Your task to perform on an android device: Turn on the flashlight Image 0: 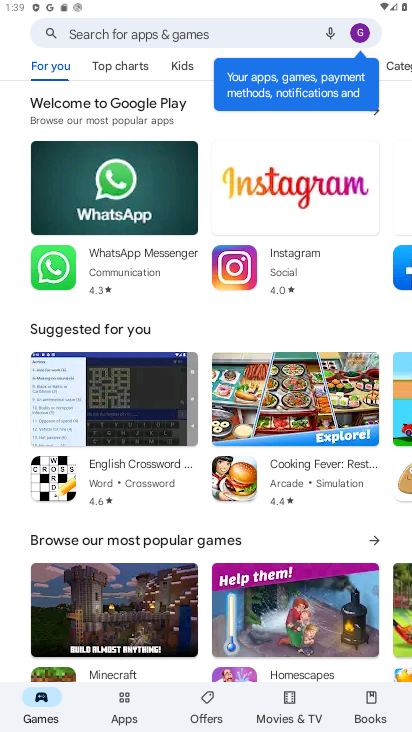
Step 0: press home button
Your task to perform on an android device: Turn on the flashlight Image 1: 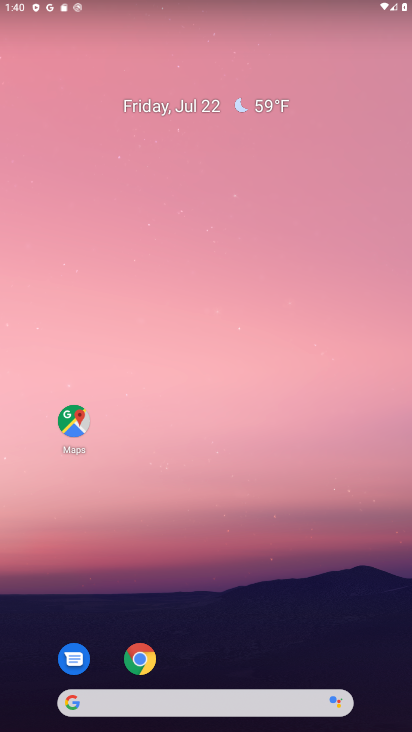
Step 1: drag from (262, 335) to (368, 696)
Your task to perform on an android device: Turn on the flashlight Image 2: 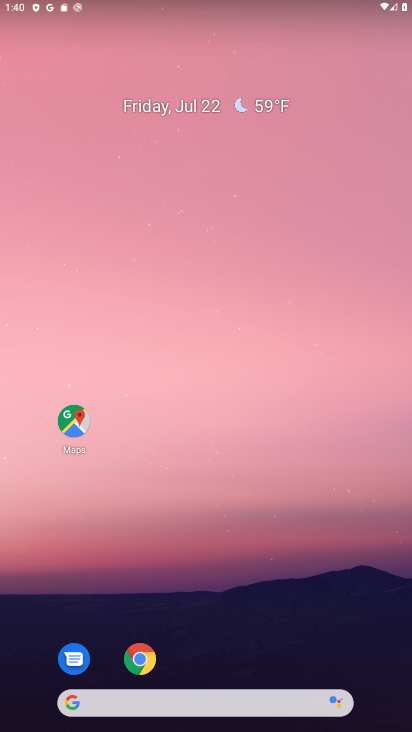
Step 2: drag from (267, 640) to (288, 1)
Your task to perform on an android device: Turn on the flashlight Image 3: 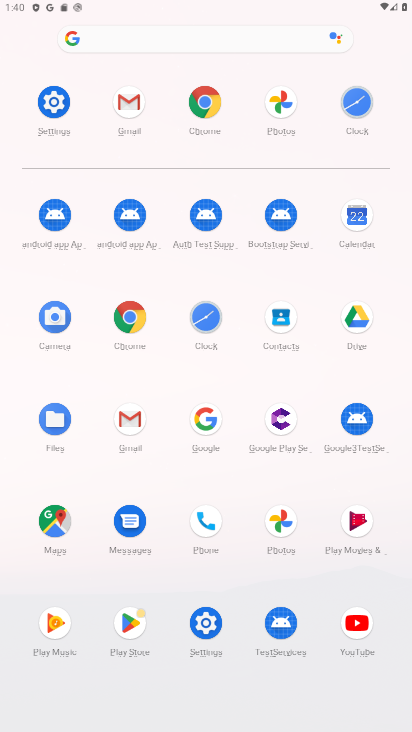
Step 3: click (46, 103)
Your task to perform on an android device: Turn on the flashlight Image 4: 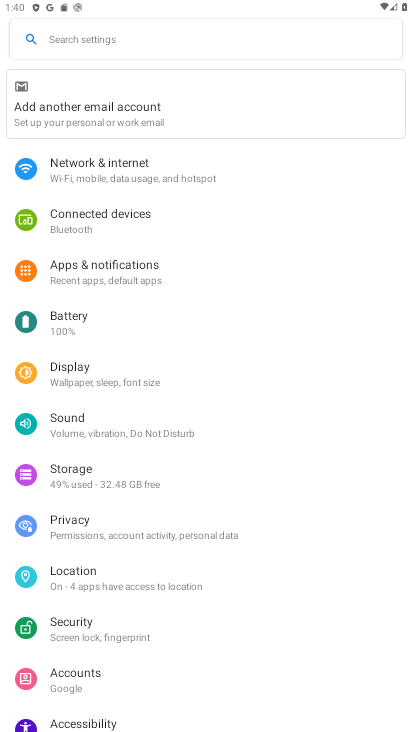
Step 4: task complete